Your task to perform on an android device: Open Google Maps Image 0: 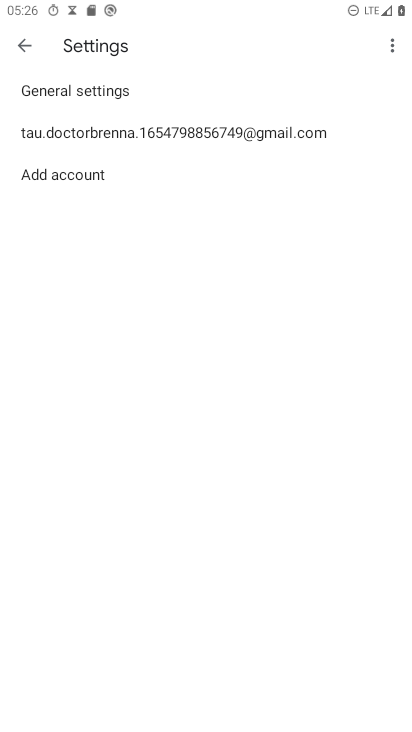
Step 0: press home button
Your task to perform on an android device: Open Google Maps Image 1: 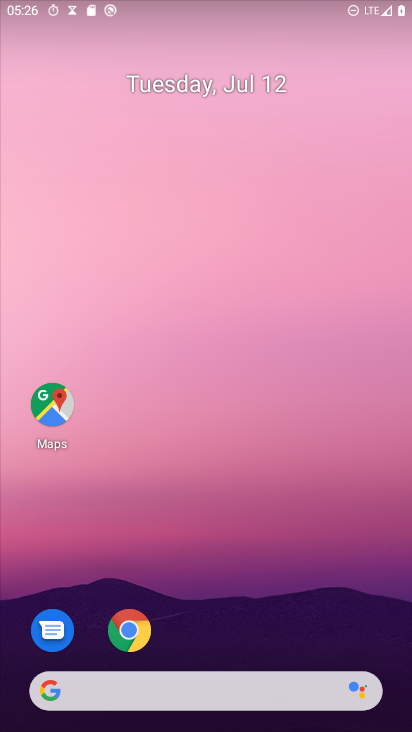
Step 1: drag from (323, 646) to (410, 400)
Your task to perform on an android device: Open Google Maps Image 2: 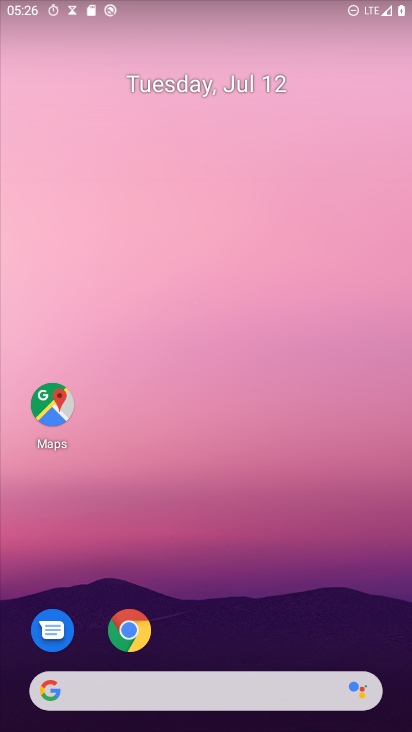
Step 2: drag from (165, 604) to (264, 15)
Your task to perform on an android device: Open Google Maps Image 3: 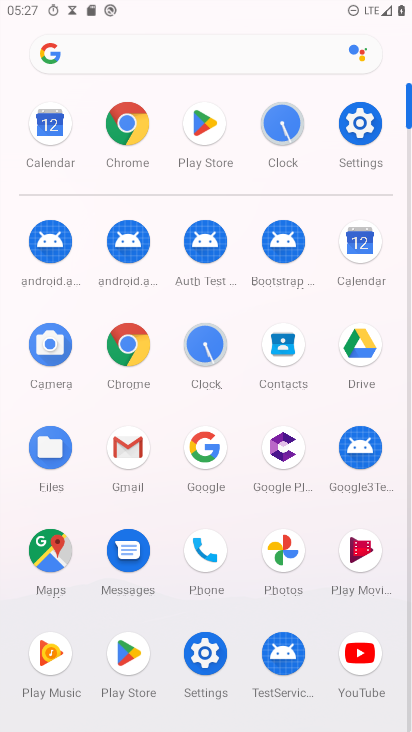
Step 3: click (48, 553)
Your task to perform on an android device: Open Google Maps Image 4: 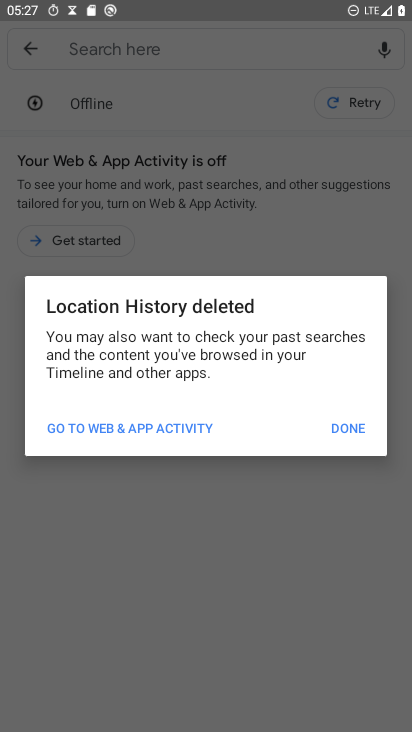
Step 4: click (348, 428)
Your task to perform on an android device: Open Google Maps Image 5: 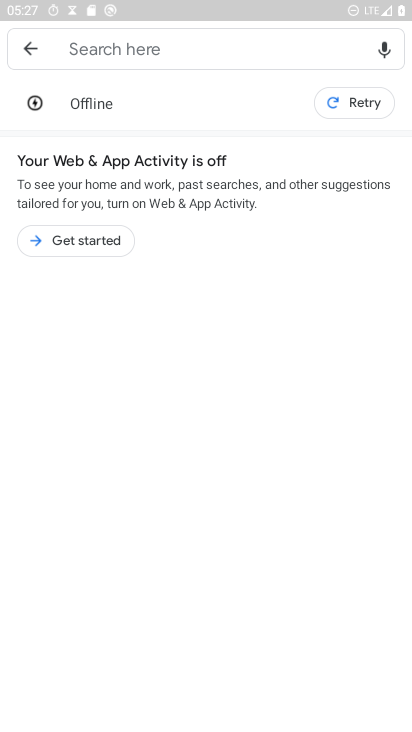
Step 5: task complete